Your task to perform on an android device: Go to calendar. Show me events next week Image 0: 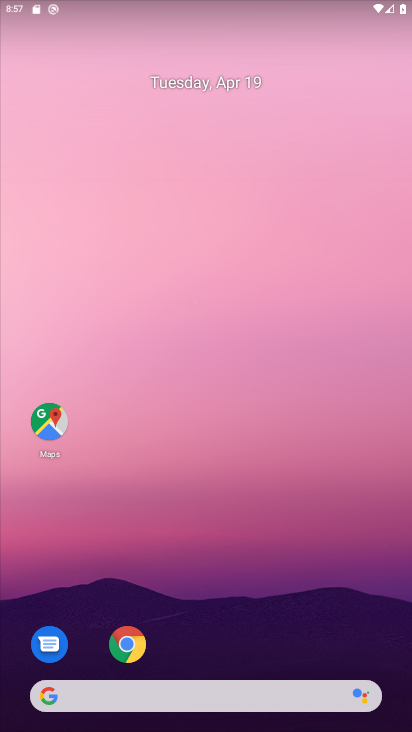
Step 0: drag from (223, 581) to (267, 130)
Your task to perform on an android device: Go to calendar. Show me events next week Image 1: 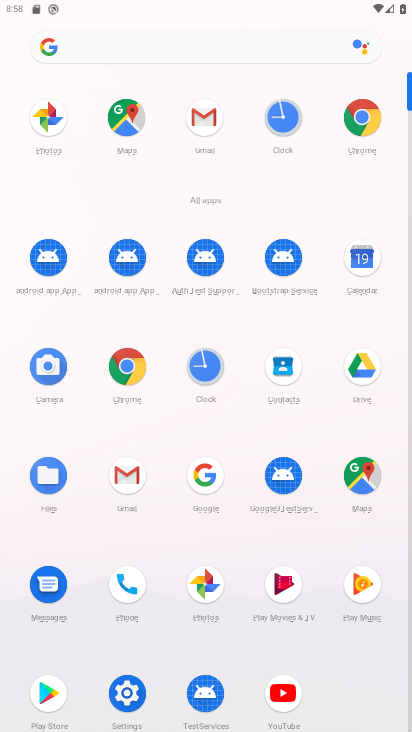
Step 1: click (353, 262)
Your task to perform on an android device: Go to calendar. Show me events next week Image 2: 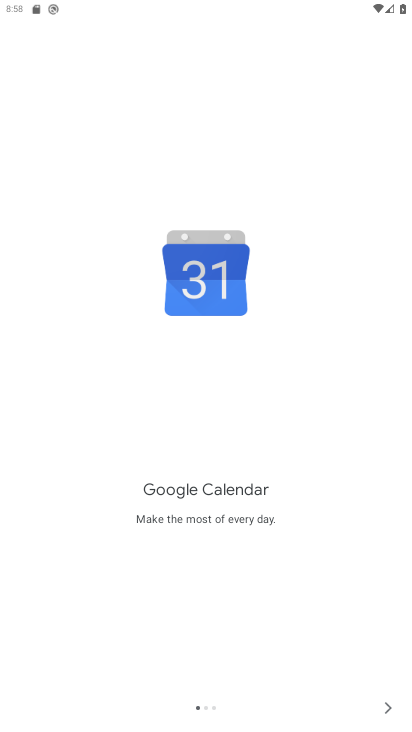
Step 2: click (385, 705)
Your task to perform on an android device: Go to calendar. Show me events next week Image 3: 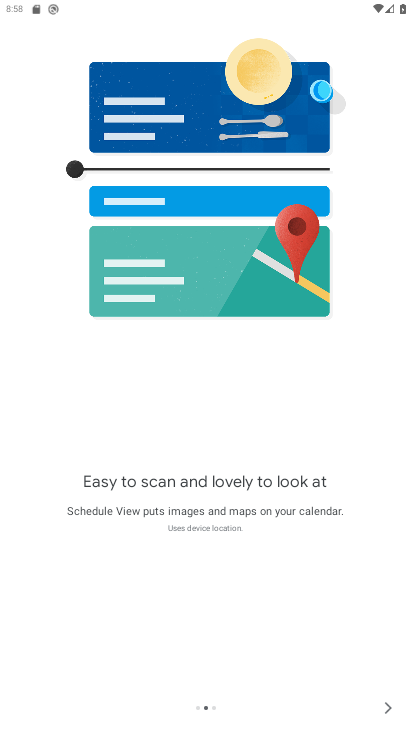
Step 3: click (385, 705)
Your task to perform on an android device: Go to calendar. Show me events next week Image 4: 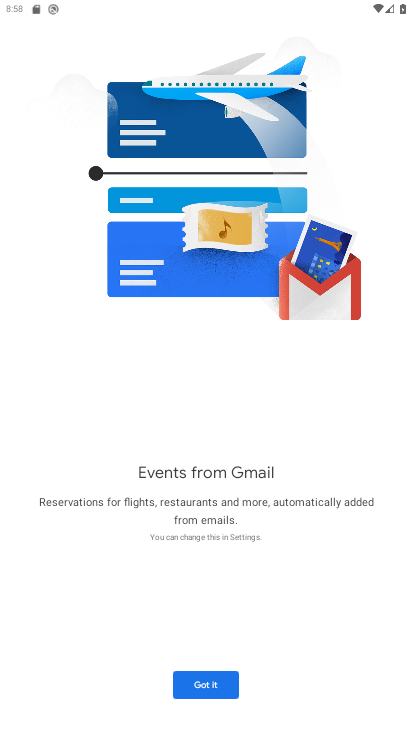
Step 4: click (194, 681)
Your task to perform on an android device: Go to calendar. Show me events next week Image 5: 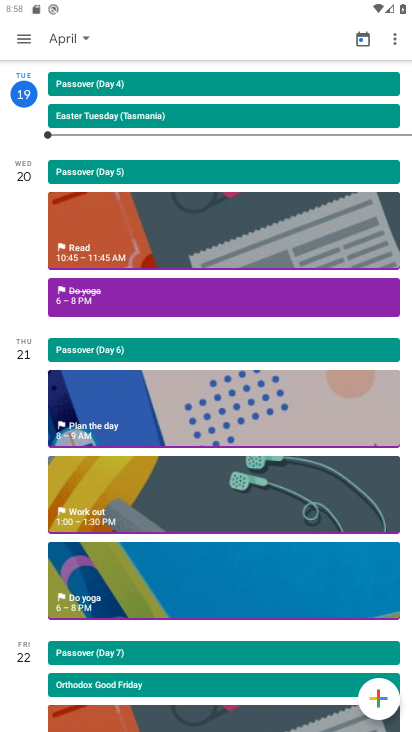
Step 5: click (54, 38)
Your task to perform on an android device: Go to calendar. Show me events next week Image 6: 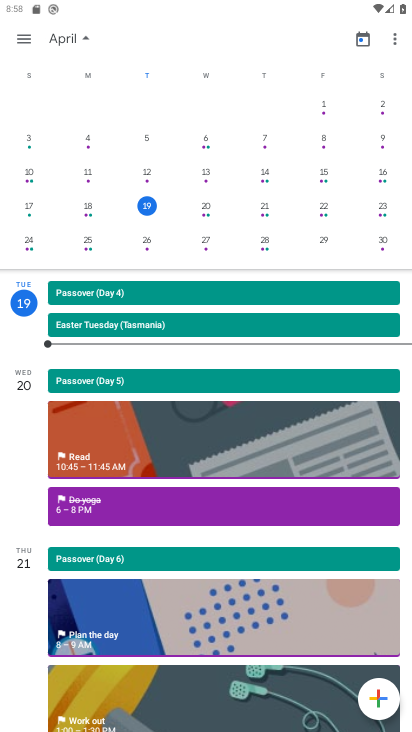
Step 6: click (84, 176)
Your task to perform on an android device: Go to calendar. Show me events next week Image 7: 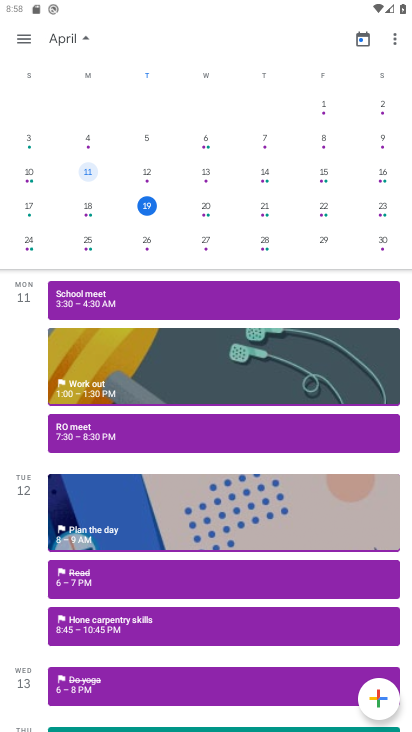
Step 7: click (30, 168)
Your task to perform on an android device: Go to calendar. Show me events next week Image 8: 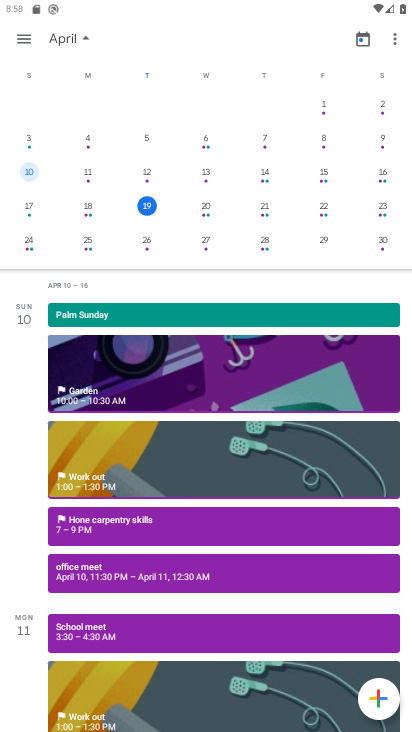
Step 8: click (375, 702)
Your task to perform on an android device: Go to calendar. Show me events next week Image 9: 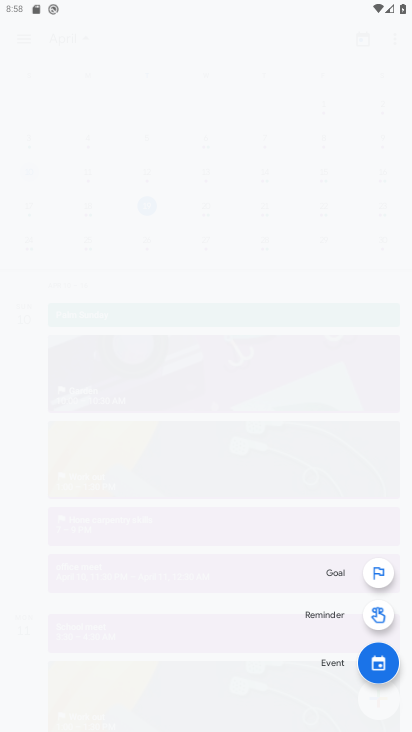
Step 9: click (326, 659)
Your task to perform on an android device: Go to calendar. Show me events next week Image 10: 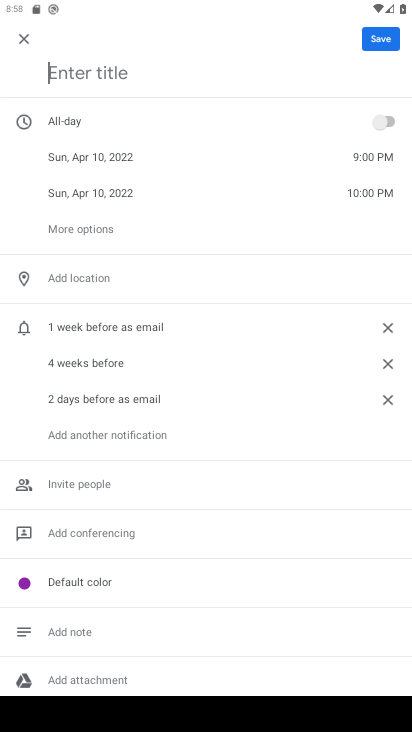
Step 10: type "PTO meet"
Your task to perform on an android device: Go to calendar. Show me events next week Image 11: 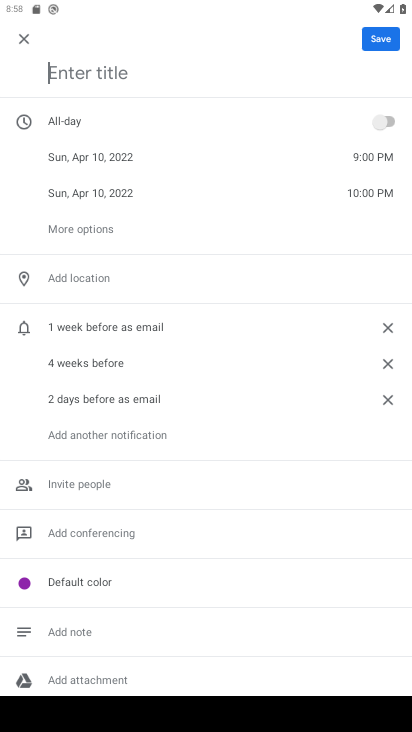
Step 11: click (370, 42)
Your task to perform on an android device: Go to calendar. Show me events next week Image 12: 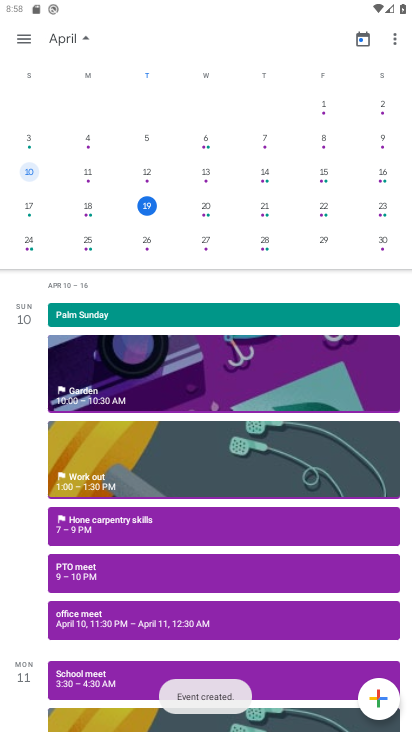
Step 12: task complete